Your task to perform on an android device: Open the web browser Image 0: 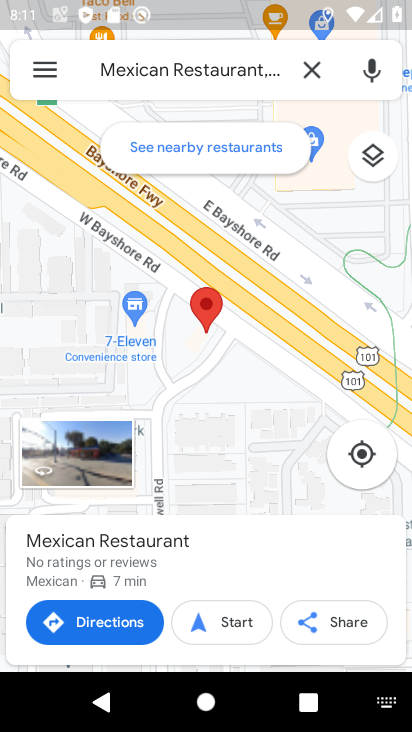
Step 0: press home button
Your task to perform on an android device: Open the web browser Image 1: 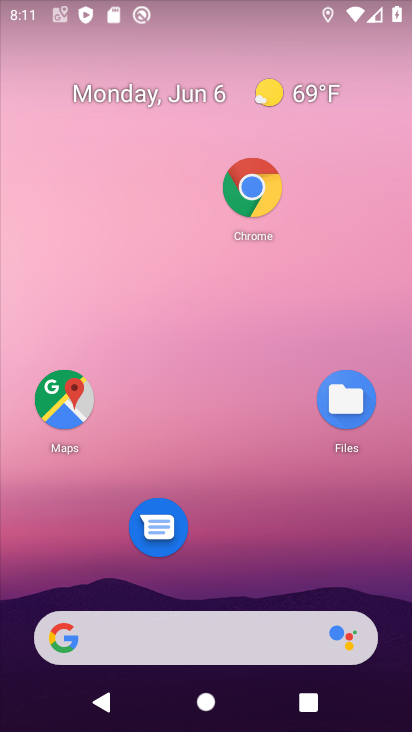
Step 1: drag from (257, 481) to (257, 82)
Your task to perform on an android device: Open the web browser Image 2: 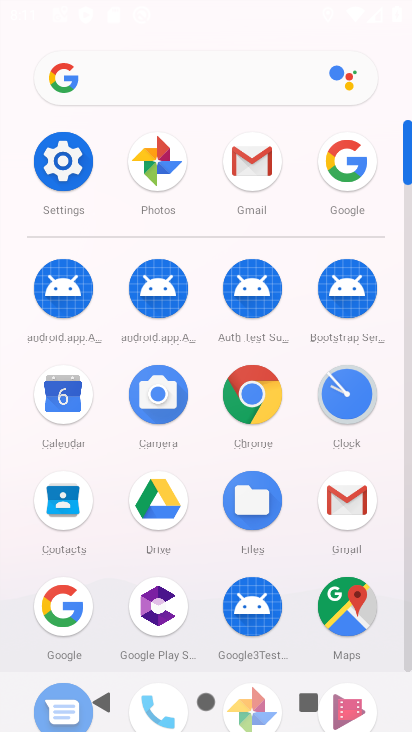
Step 2: click (358, 156)
Your task to perform on an android device: Open the web browser Image 3: 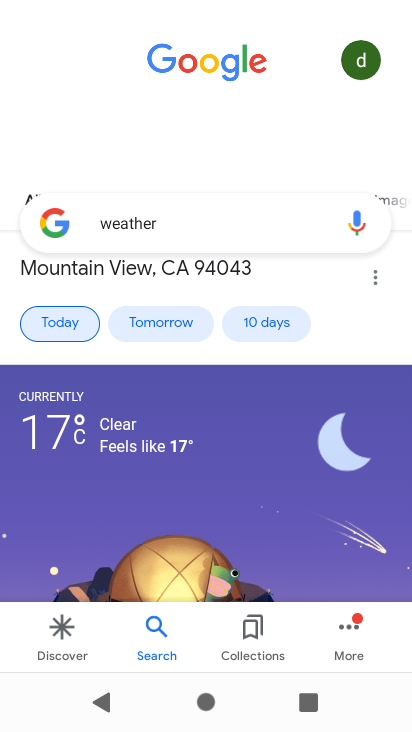
Step 3: task complete